Your task to perform on an android device: toggle notifications settings in the gmail app Image 0: 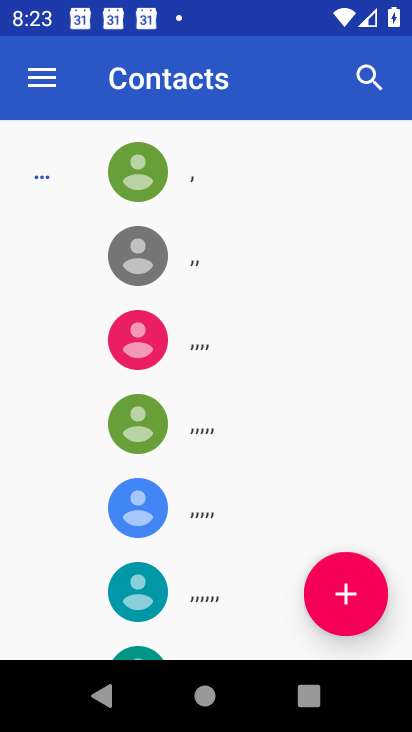
Step 0: press home button
Your task to perform on an android device: toggle notifications settings in the gmail app Image 1: 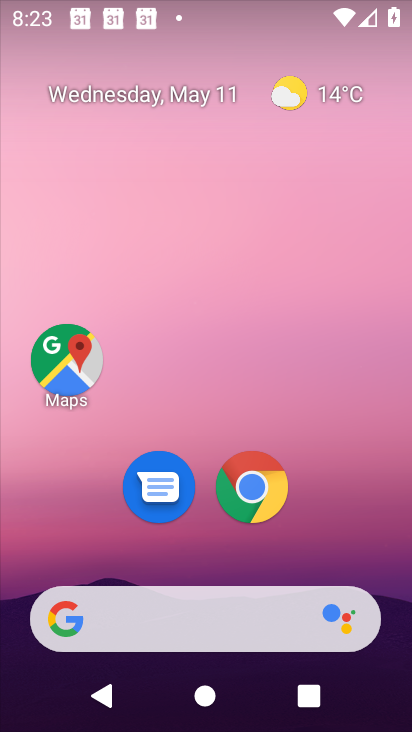
Step 1: drag from (238, 723) to (236, 40)
Your task to perform on an android device: toggle notifications settings in the gmail app Image 2: 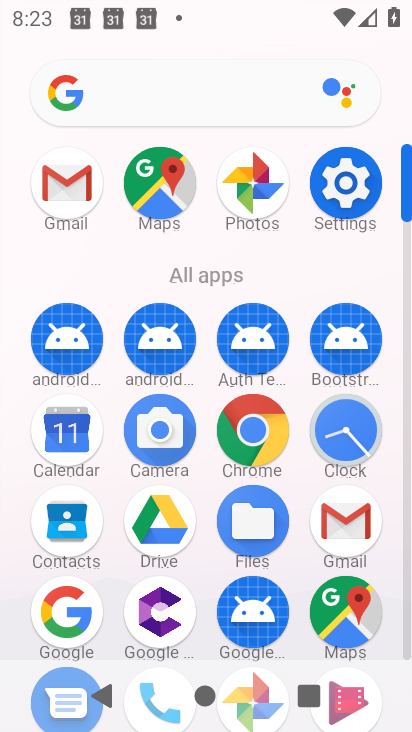
Step 2: click (366, 511)
Your task to perform on an android device: toggle notifications settings in the gmail app Image 3: 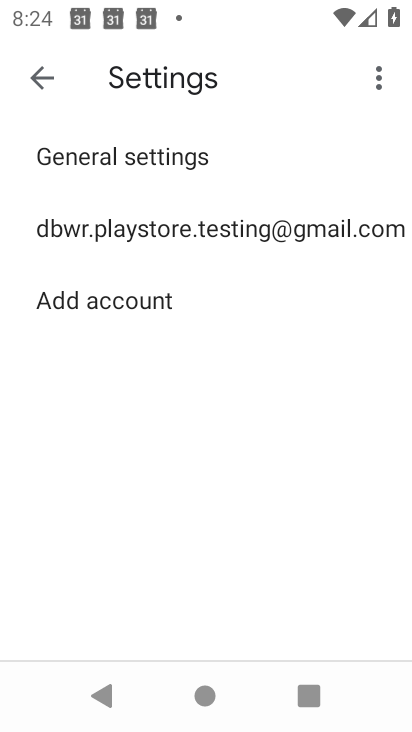
Step 3: click (176, 227)
Your task to perform on an android device: toggle notifications settings in the gmail app Image 4: 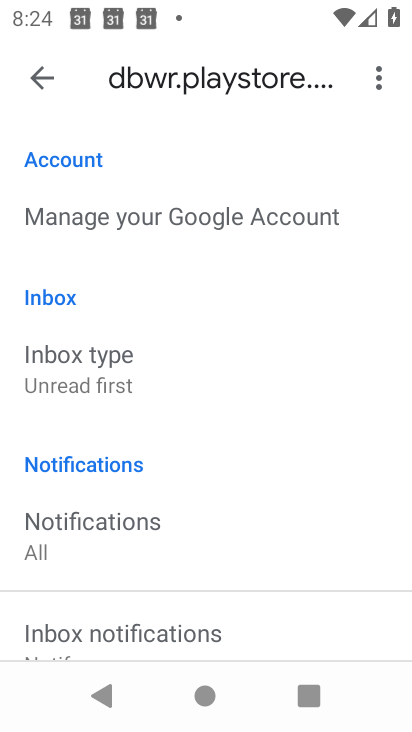
Step 4: click (134, 519)
Your task to perform on an android device: toggle notifications settings in the gmail app Image 5: 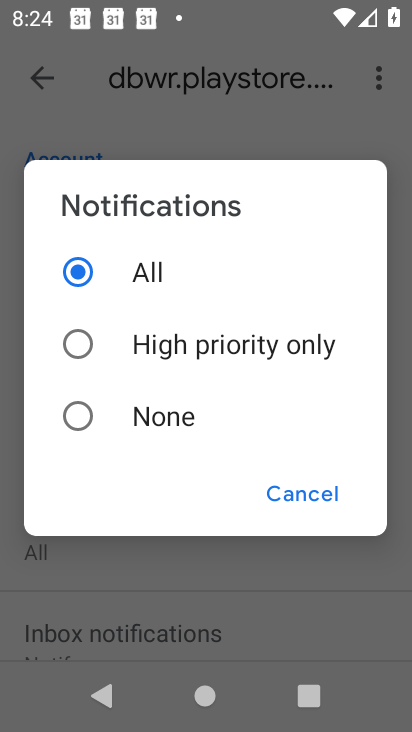
Step 5: click (77, 348)
Your task to perform on an android device: toggle notifications settings in the gmail app Image 6: 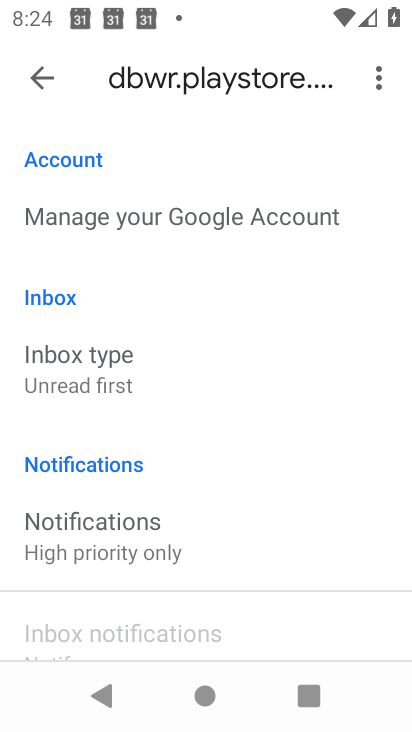
Step 6: task complete